Your task to perform on an android device: check google app version Image 0: 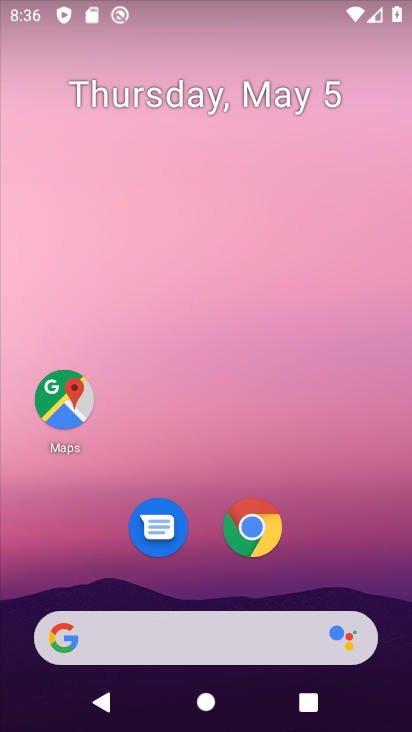
Step 0: drag from (327, 568) to (202, 1)
Your task to perform on an android device: check google app version Image 1: 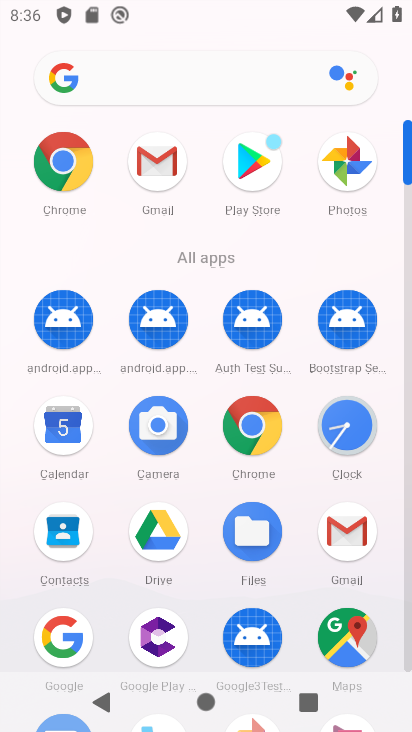
Step 1: click (49, 633)
Your task to perform on an android device: check google app version Image 2: 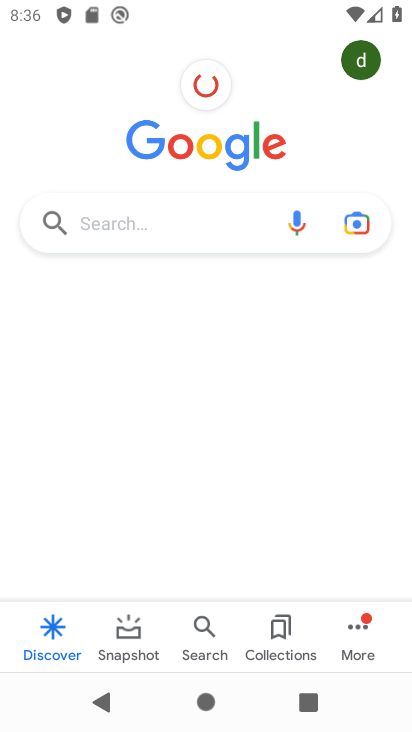
Step 2: click (351, 630)
Your task to perform on an android device: check google app version Image 3: 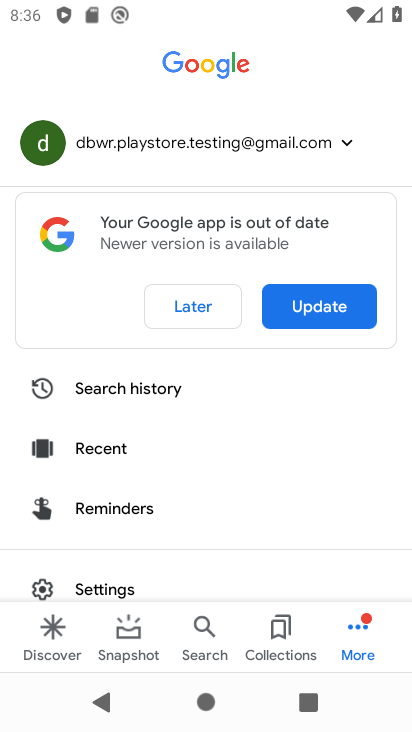
Step 3: drag from (187, 537) to (173, 106)
Your task to perform on an android device: check google app version Image 4: 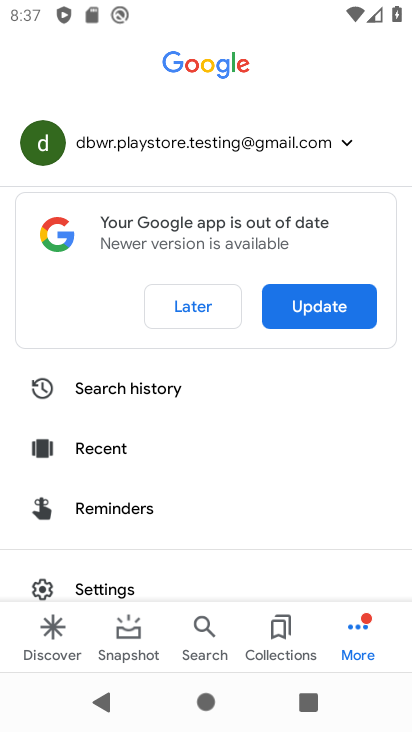
Step 4: click (107, 119)
Your task to perform on an android device: check google app version Image 5: 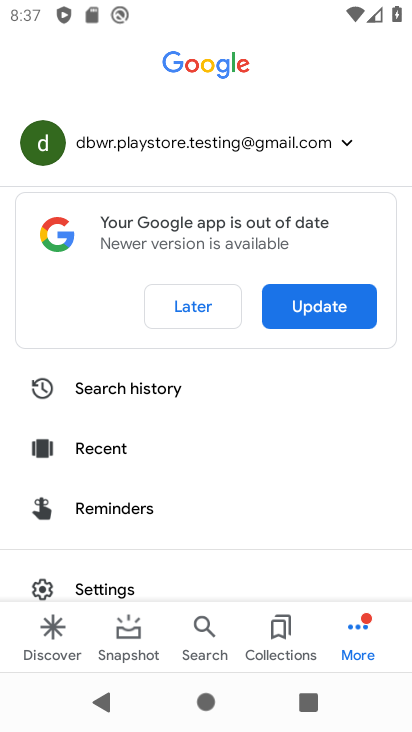
Step 5: drag from (192, 449) to (212, 138)
Your task to perform on an android device: check google app version Image 6: 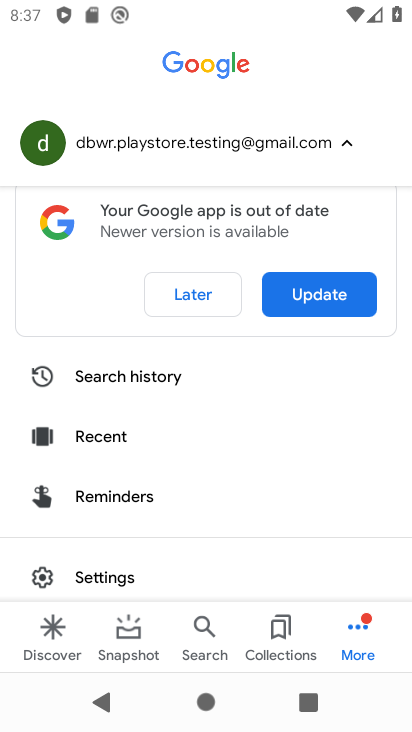
Step 6: click (98, 575)
Your task to perform on an android device: check google app version Image 7: 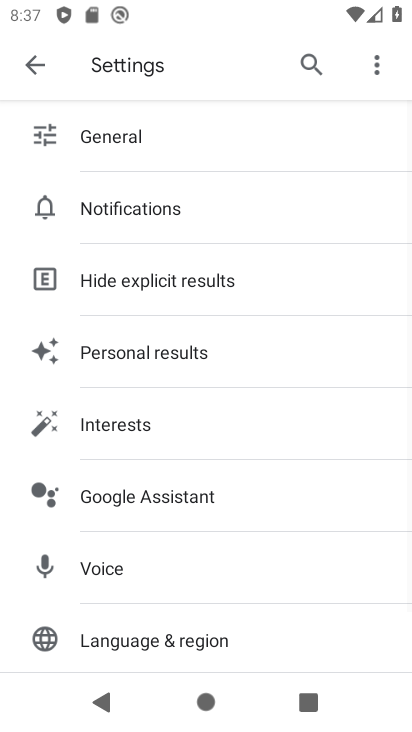
Step 7: drag from (99, 596) to (47, 84)
Your task to perform on an android device: check google app version Image 8: 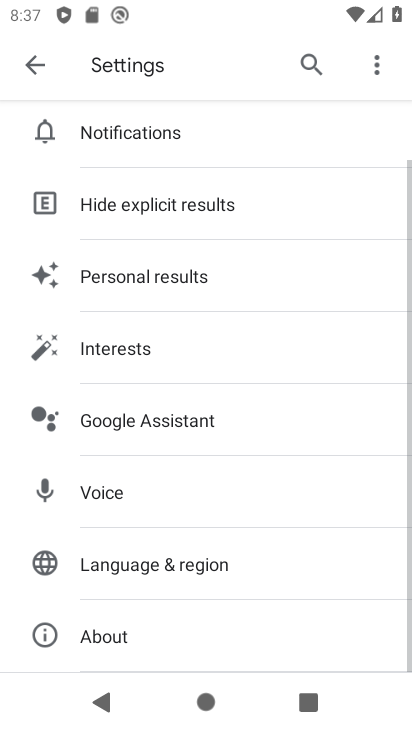
Step 8: drag from (120, 585) to (89, 109)
Your task to perform on an android device: check google app version Image 9: 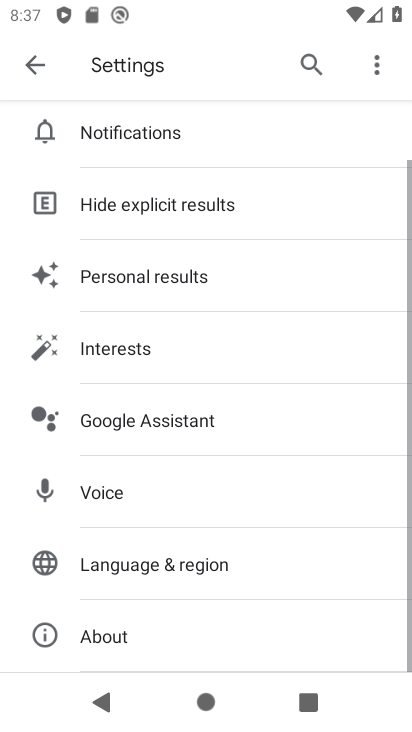
Step 9: click (104, 636)
Your task to perform on an android device: check google app version Image 10: 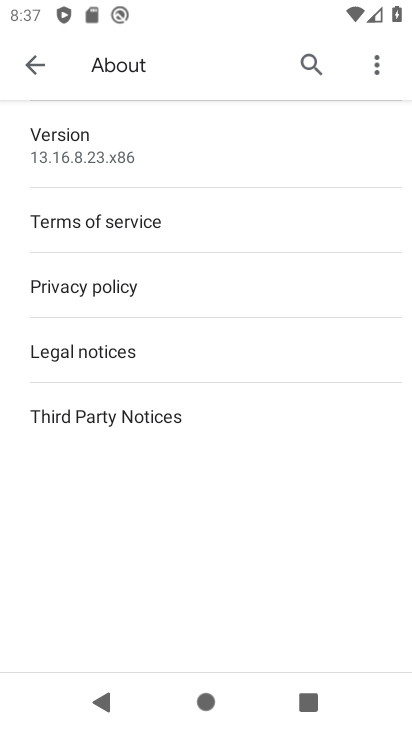
Step 10: click (72, 146)
Your task to perform on an android device: check google app version Image 11: 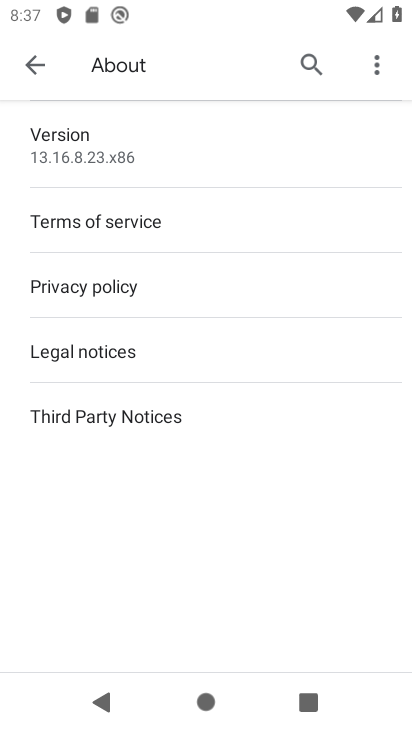
Step 11: task complete